Your task to perform on an android device: check google app version Image 0: 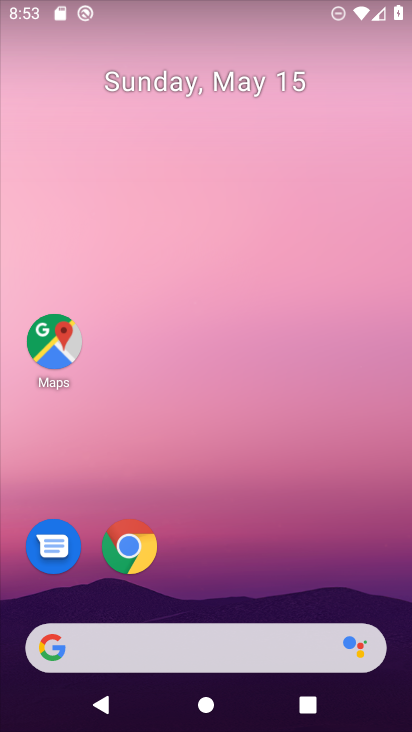
Step 0: drag from (282, 484) to (242, 50)
Your task to perform on an android device: check google app version Image 1: 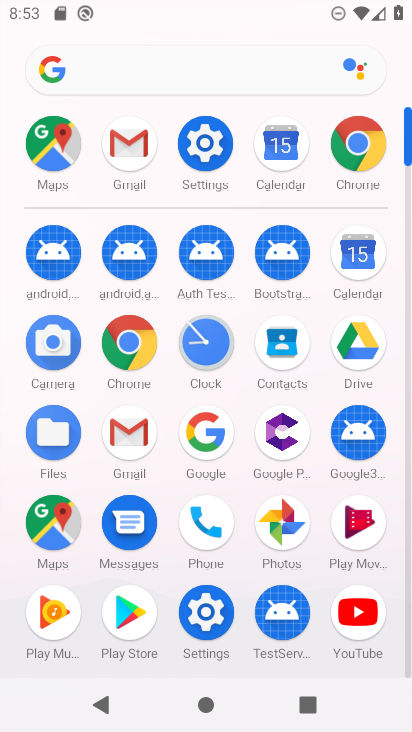
Step 1: click (195, 427)
Your task to perform on an android device: check google app version Image 2: 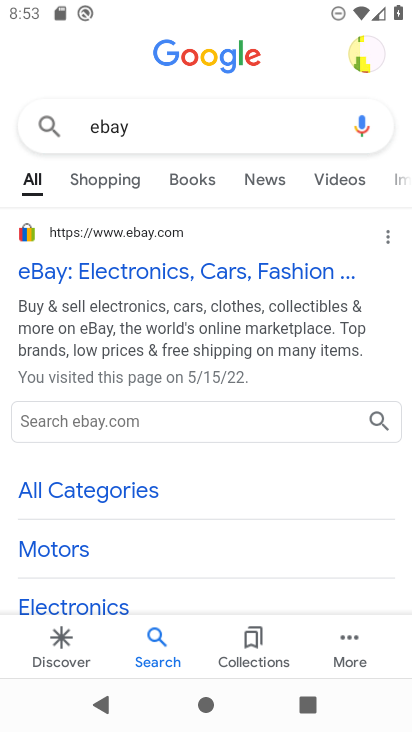
Step 2: click (366, 640)
Your task to perform on an android device: check google app version Image 3: 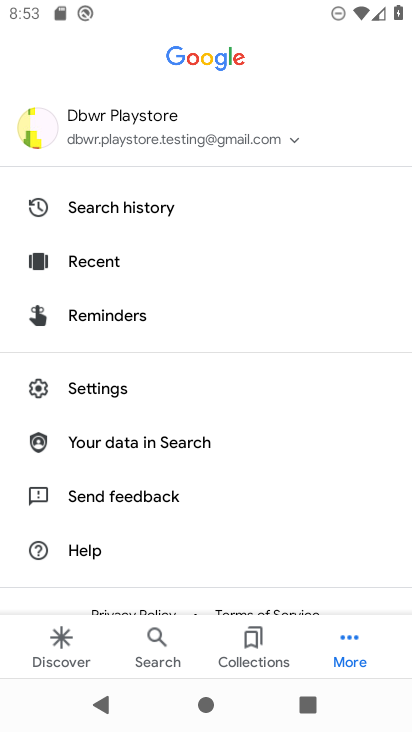
Step 3: click (124, 383)
Your task to perform on an android device: check google app version Image 4: 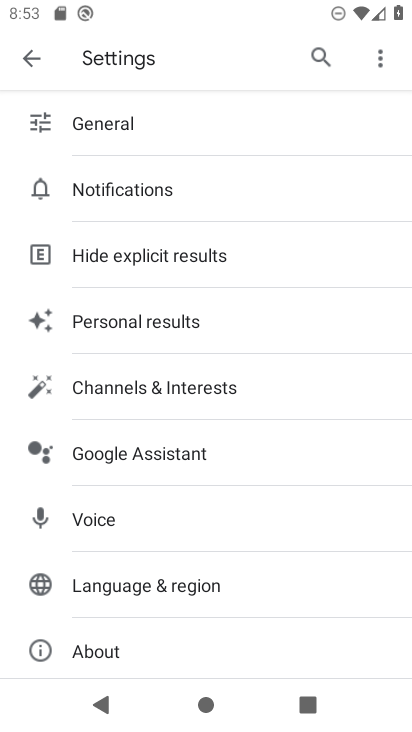
Step 4: click (105, 643)
Your task to perform on an android device: check google app version Image 5: 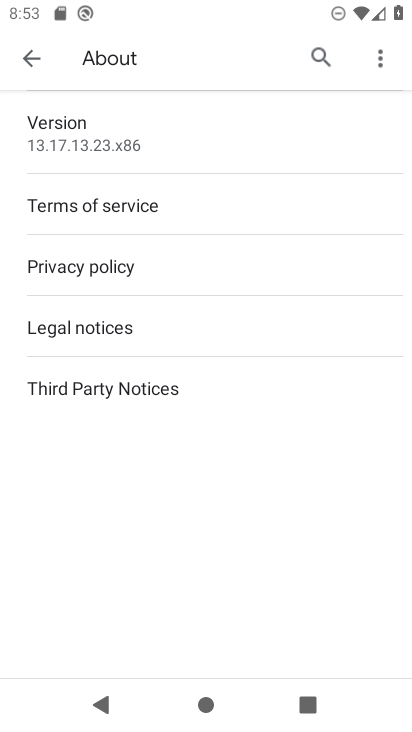
Step 5: task complete